Your task to perform on an android device: Open the Play Movies app and select the watchlist tab. Image 0: 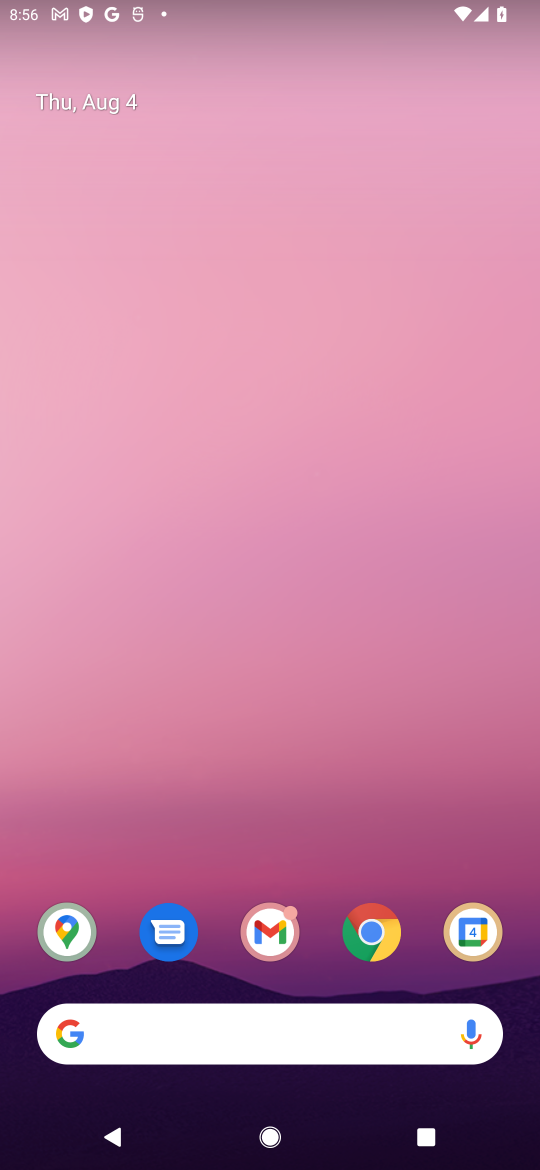
Step 0: drag from (296, 898) to (317, 159)
Your task to perform on an android device: Open the Play Movies app and select the watchlist tab. Image 1: 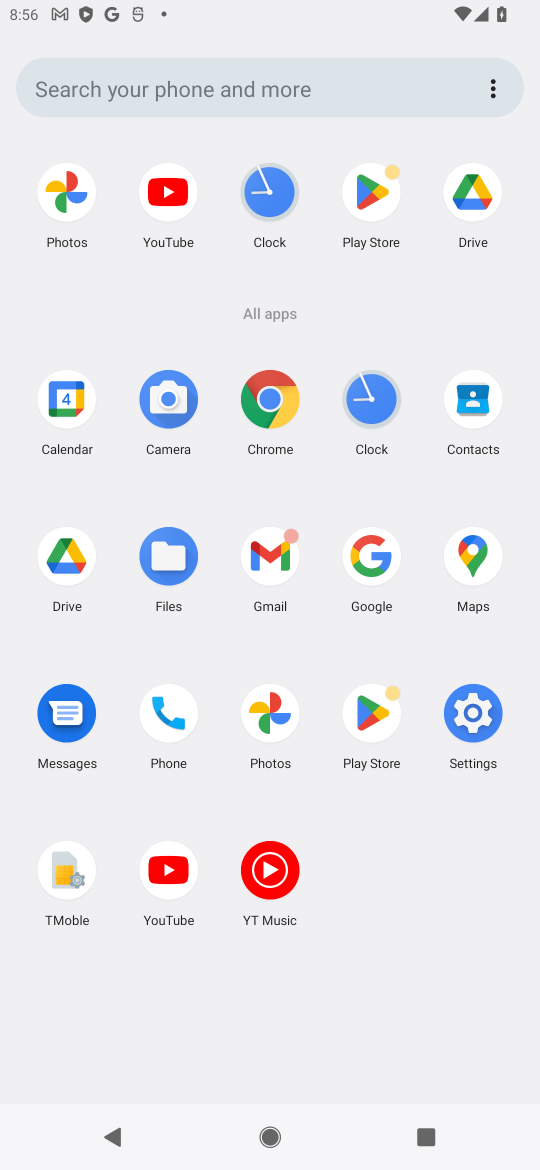
Step 1: task complete